Your task to perform on an android device: check storage Image 0: 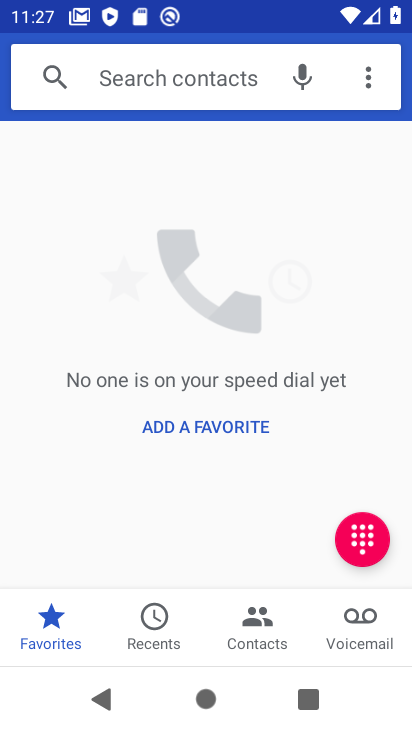
Step 0: press home button
Your task to perform on an android device: check storage Image 1: 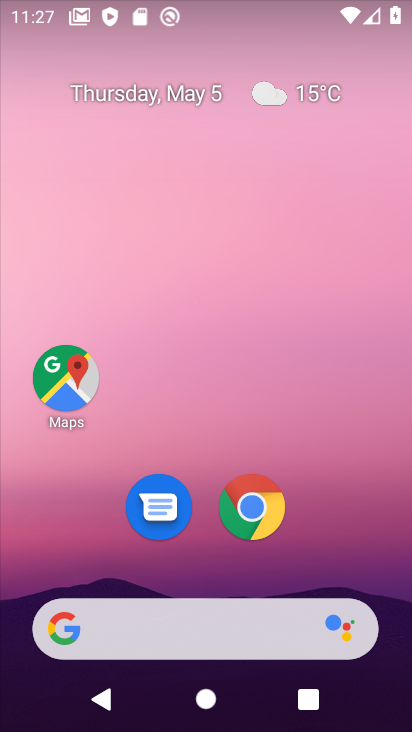
Step 1: drag from (306, 521) to (267, 28)
Your task to perform on an android device: check storage Image 2: 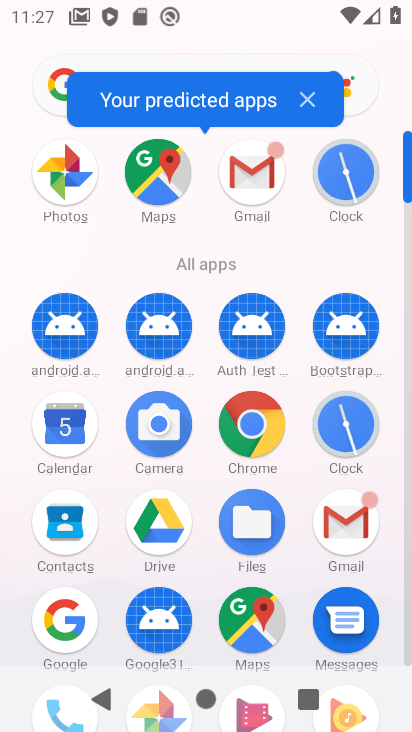
Step 2: drag from (213, 535) to (252, 79)
Your task to perform on an android device: check storage Image 3: 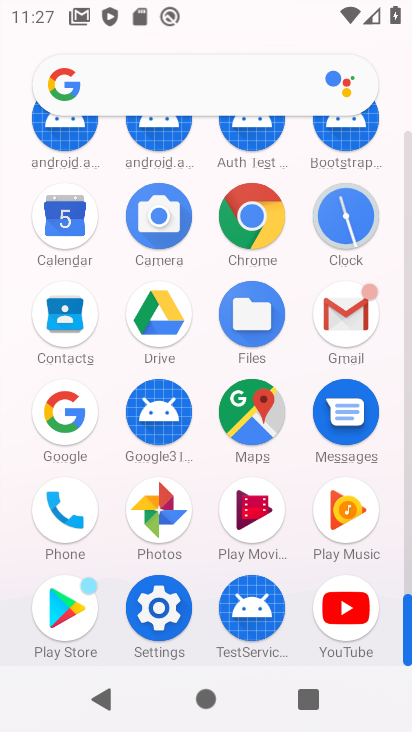
Step 3: click (157, 608)
Your task to perform on an android device: check storage Image 4: 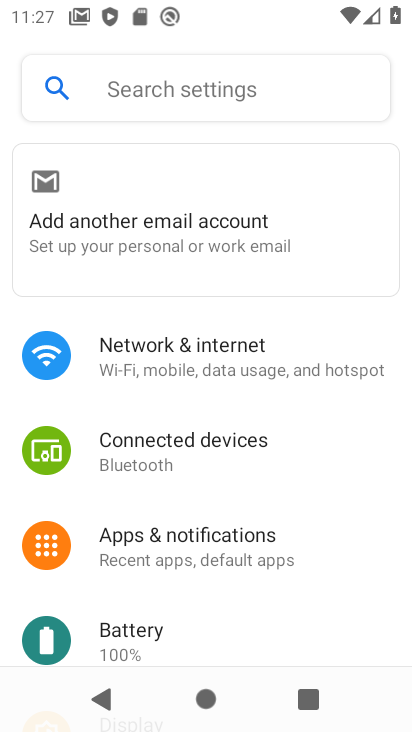
Step 4: drag from (199, 489) to (125, 70)
Your task to perform on an android device: check storage Image 5: 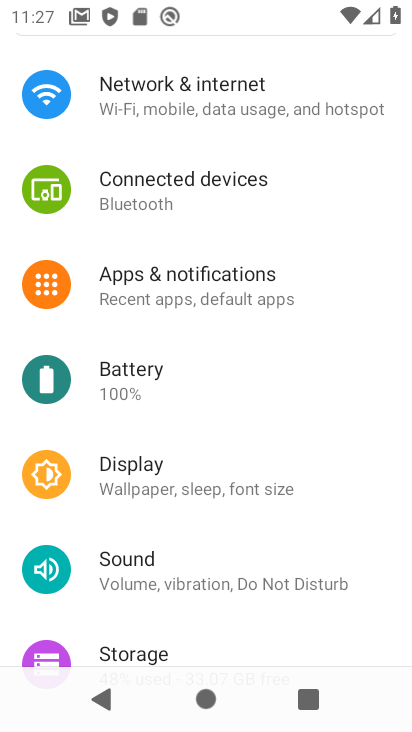
Step 5: drag from (176, 613) to (86, 195)
Your task to perform on an android device: check storage Image 6: 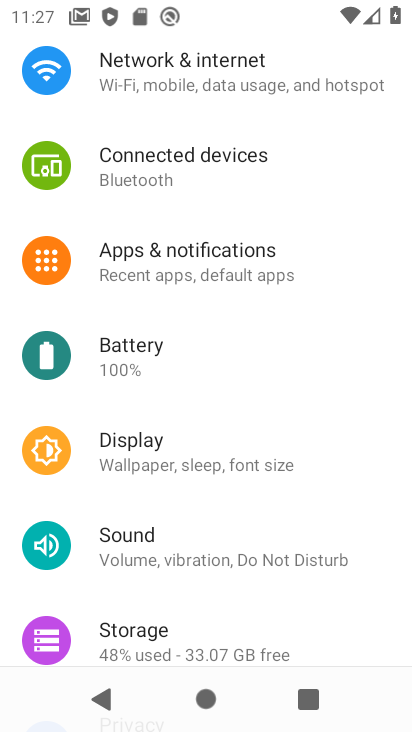
Step 6: click (132, 629)
Your task to perform on an android device: check storage Image 7: 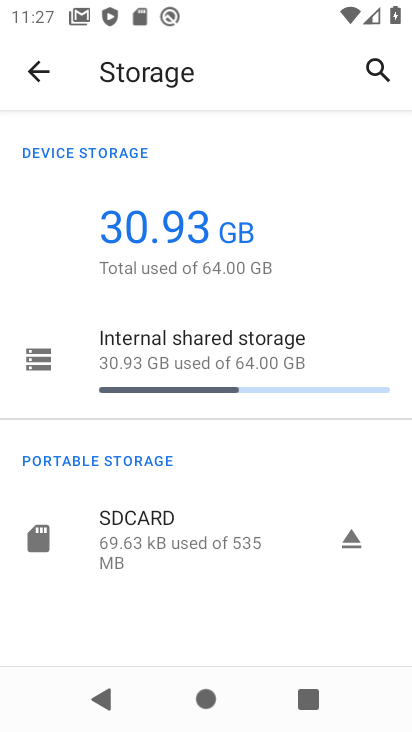
Step 7: task complete